Your task to perform on an android device: Go to calendar. Show me events next week Image 0: 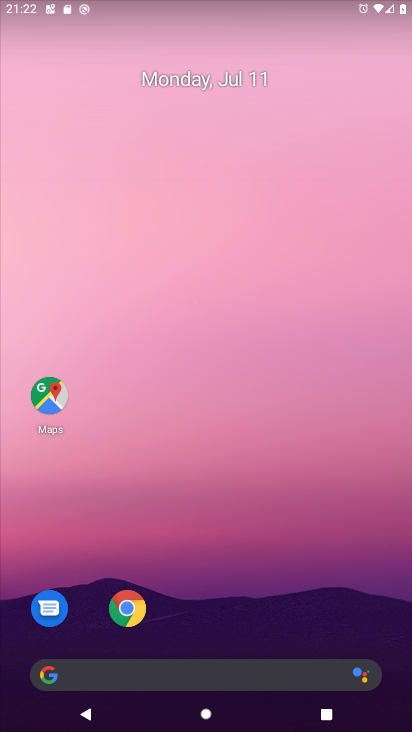
Step 0: click (296, 631)
Your task to perform on an android device: Go to calendar. Show me events next week Image 1: 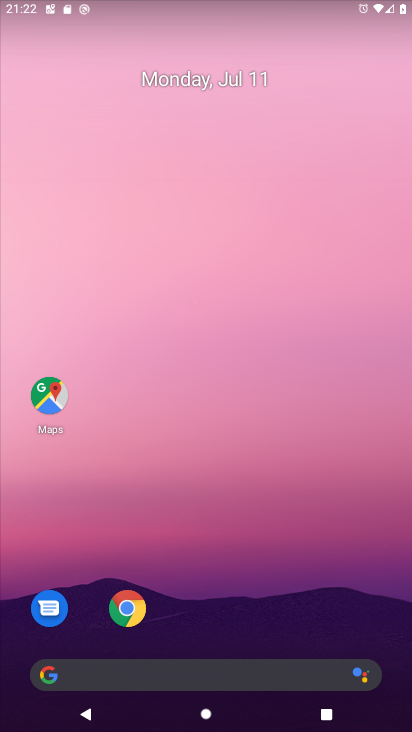
Step 1: drag from (296, 631) to (187, 13)
Your task to perform on an android device: Go to calendar. Show me events next week Image 2: 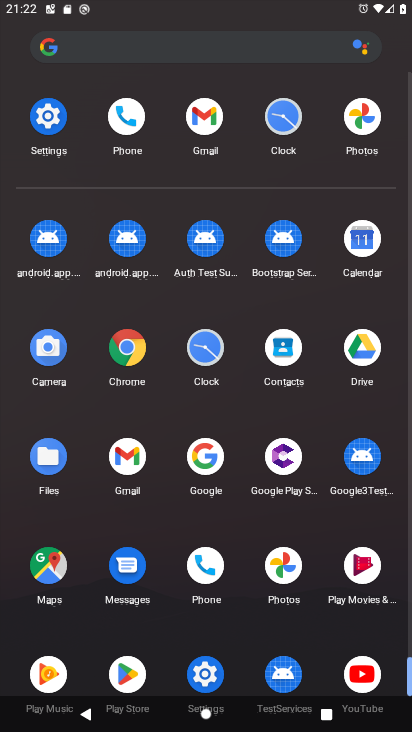
Step 2: click (375, 259)
Your task to perform on an android device: Go to calendar. Show me events next week Image 3: 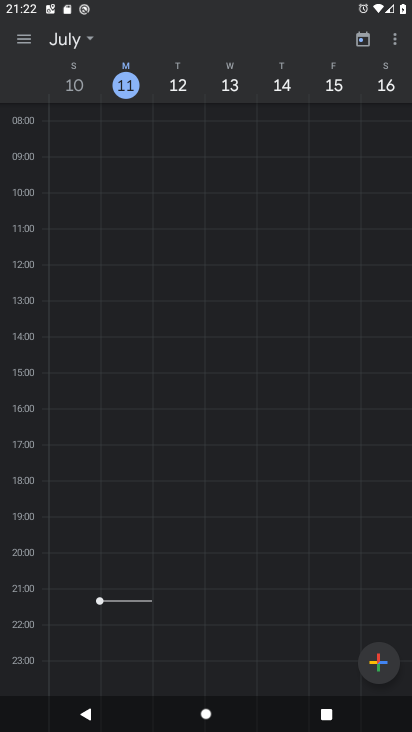
Step 3: task complete